Your task to perform on an android device: Go to Amazon Image 0: 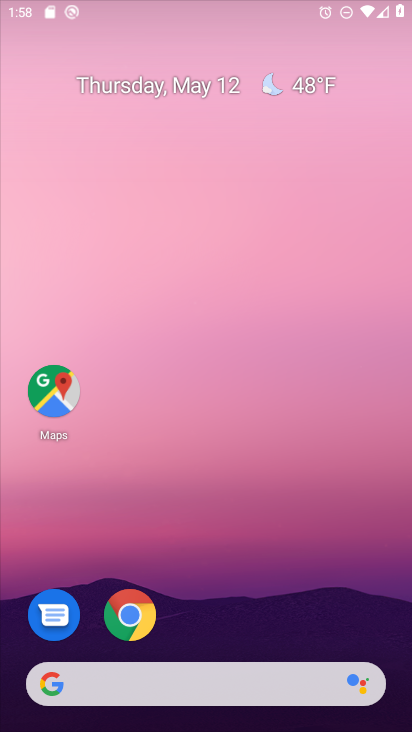
Step 0: drag from (302, 644) to (232, 35)
Your task to perform on an android device: Go to Amazon Image 1: 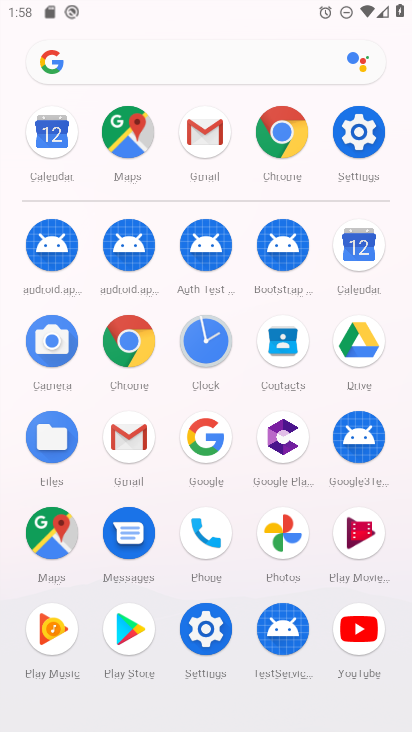
Step 1: drag from (245, 605) to (230, 314)
Your task to perform on an android device: Go to Amazon Image 2: 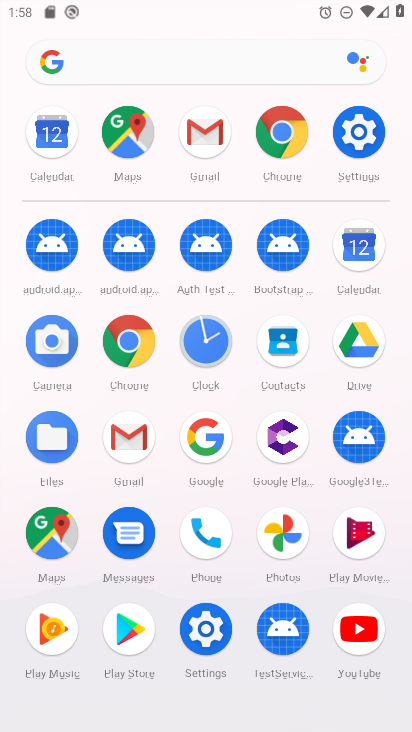
Step 2: click (140, 348)
Your task to perform on an android device: Go to Amazon Image 3: 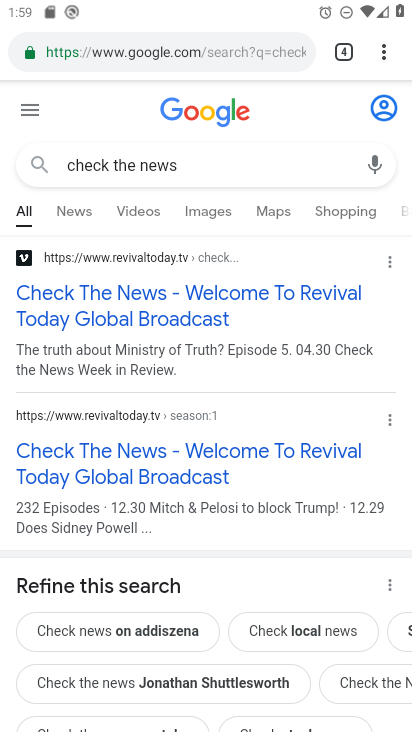
Step 3: drag from (385, 55) to (239, 100)
Your task to perform on an android device: Go to Amazon Image 4: 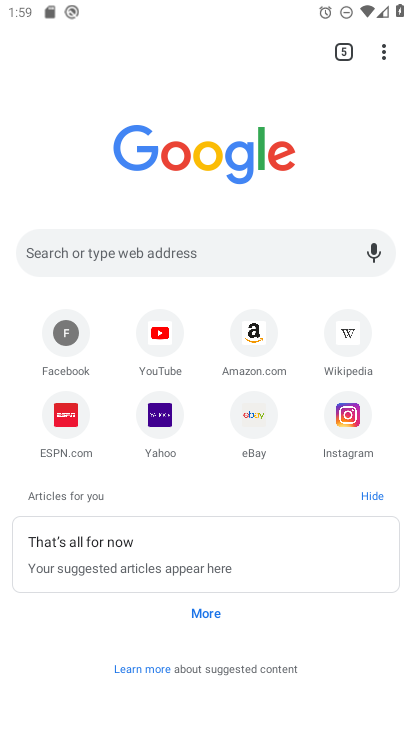
Step 4: click (253, 340)
Your task to perform on an android device: Go to Amazon Image 5: 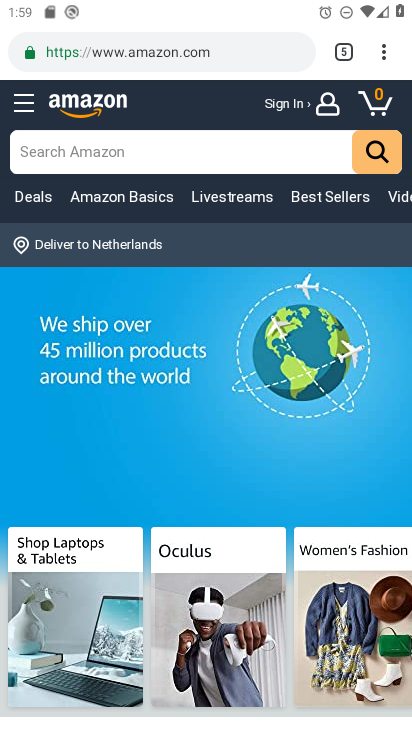
Step 5: task complete